Your task to perform on an android device: Open Maps and search for coffee Image 0: 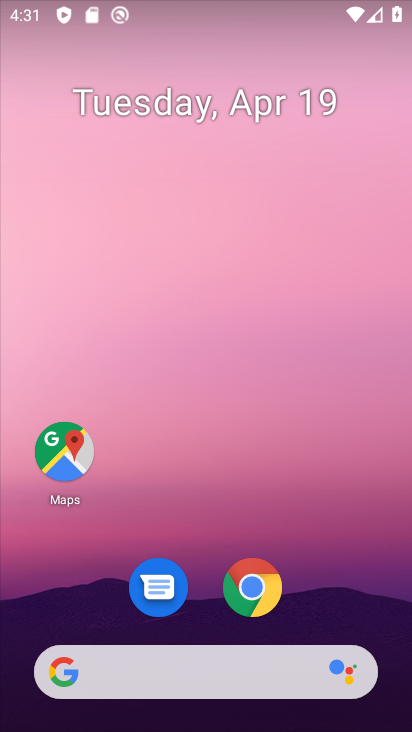
Step 0: drag from (332, 417) to (127, 6)
Your task to perform on an android device: Open Maps and search for coffee Image 1: 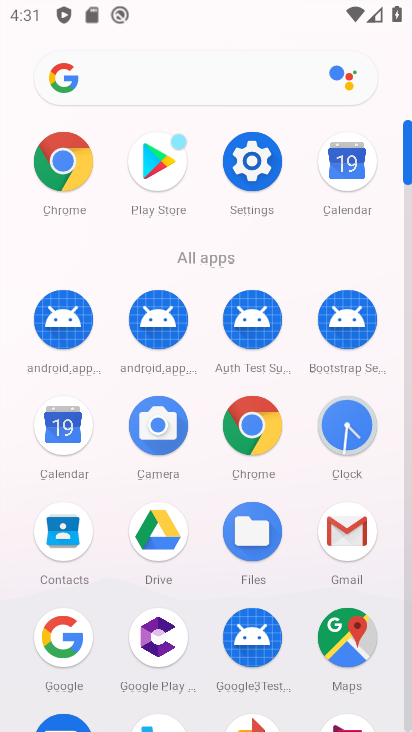
Step 1: drag from (9, 476) to (33, 210)
Your task to perform on an android device: Open Maps and search for coffee Image 2: 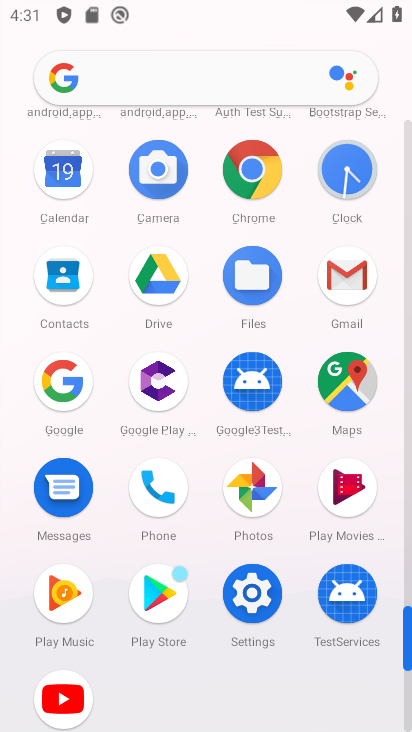
Step 2: drag from (18, 505) to (16, 226)
Your task to perform on an android device: Open Maps and search for coffee Image 3: 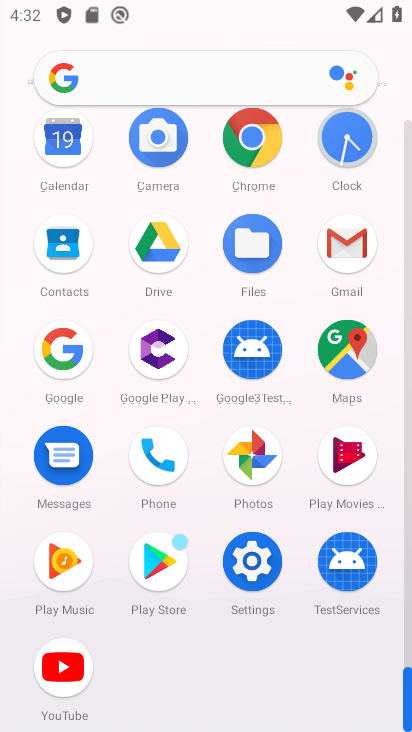
Step 3: click (344, 344)
Your task to perform on an android device: Open Maps and search for coffee Image 4: 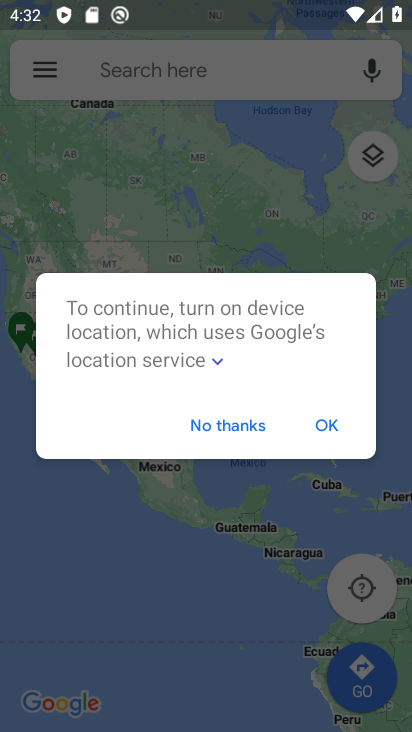
Step 4: click (330, 426)
Your task to perform on an android device: Open Maps and search for coffee Image 5: 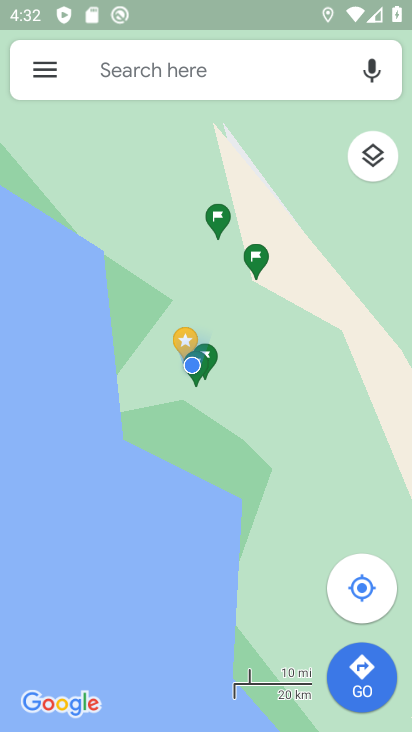
Step 5: click (256, 76)
Your task to perform on an android device: Open Maps and search for coffee Image 6: 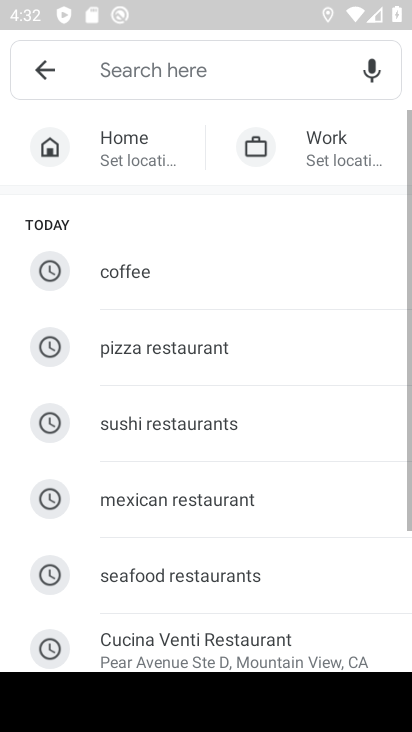
Step 6: click (188, 270)
Your task to perform on an android device: Open Maps and search for coffee Image 7: 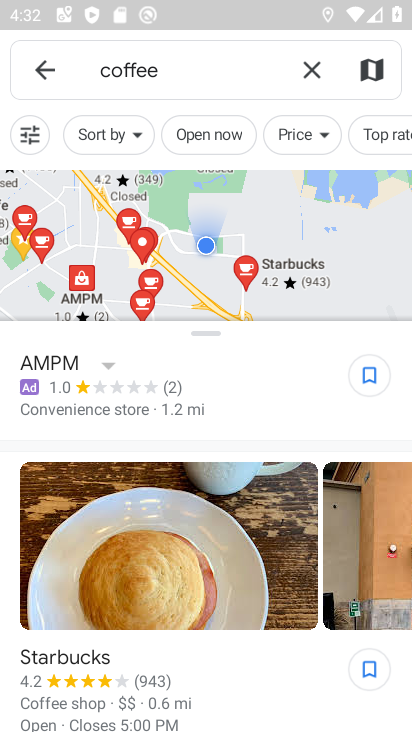
Step 7: task complete